Your task to perform on an android device: Go to wifi settings Image 0: 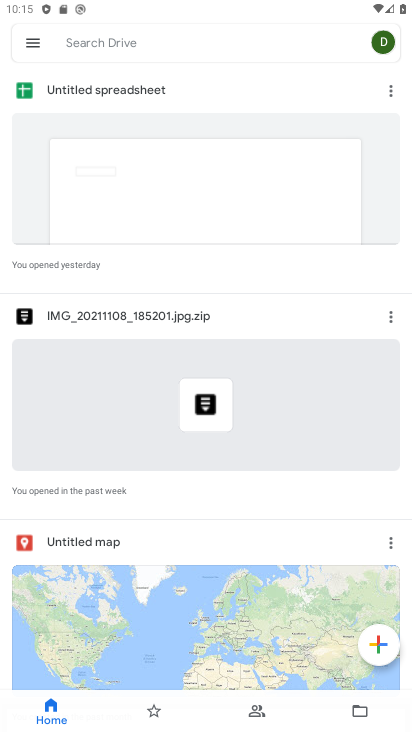
Step 0: press home button
Your task to perform on an android device: Go to wifi settings Image 1: 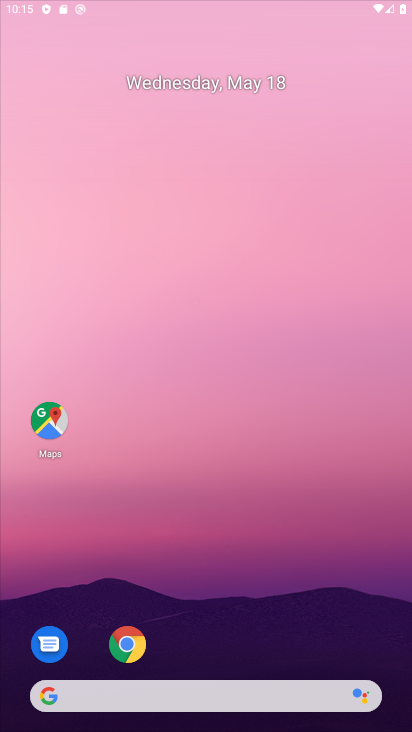
Step 1: drag from (387, 598) to (300, 97)
Your task to perform on an android device: Go to wifi settings Image 2: 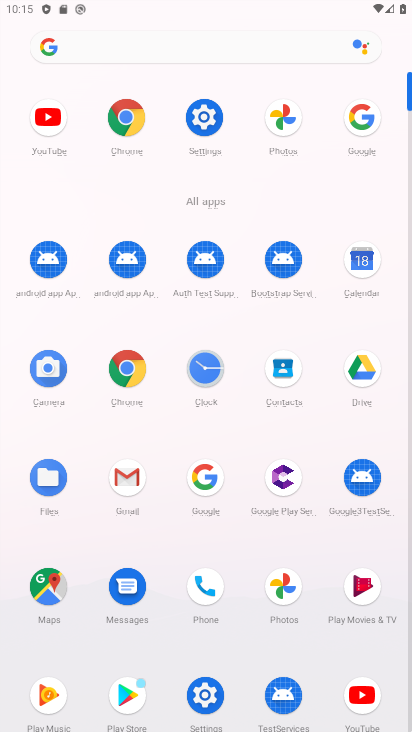
Step 2: click (215, 120)
Your task to perform on an android device: Go to wifi settings Image 3: 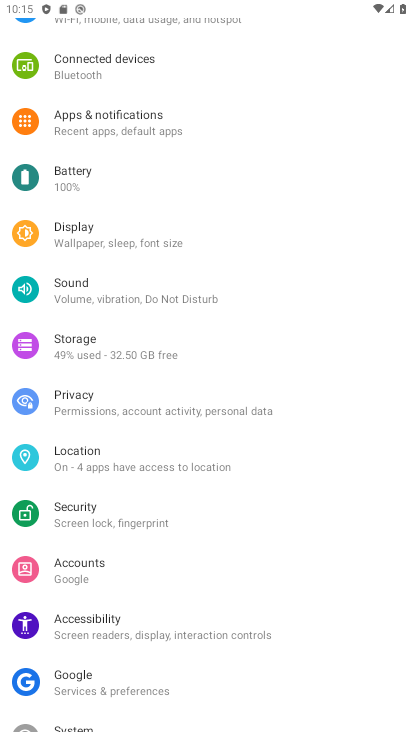
Step 3: drag from (215, 120) to (260, 611)
Your task to perform on an android device: Go to wifi settings Image 4: 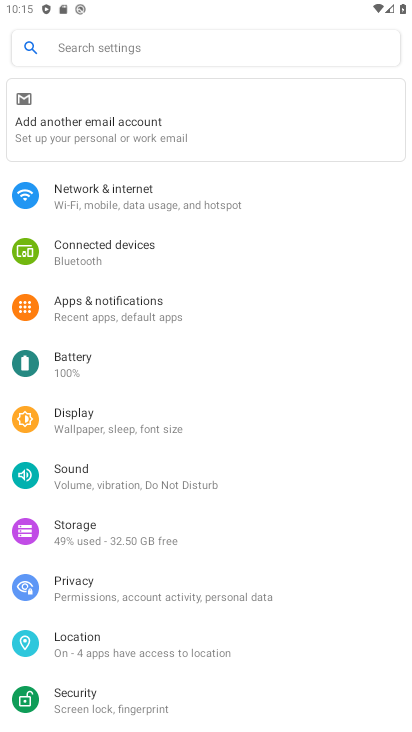
Step 4: click (171, 193)
Your task to perform on an android device: Go to wifi settings Image 5: 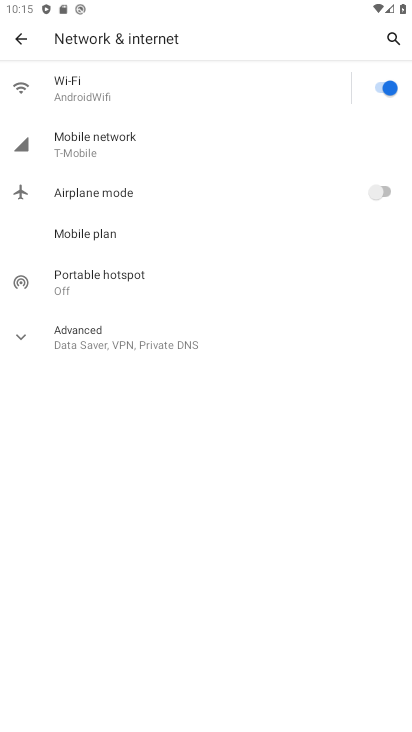
Step 5: click (156, 80)
Your task to perform on an android device: Go to wifi settings Image 6: 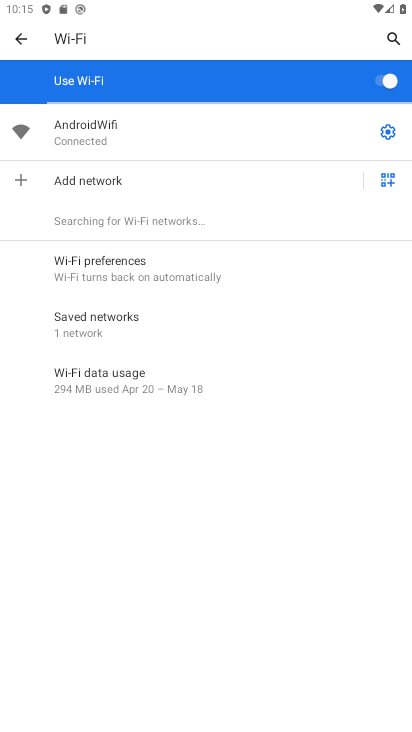
Step 6: task complete